Your task to perform on an android device: When is my next meeting? Image 0: 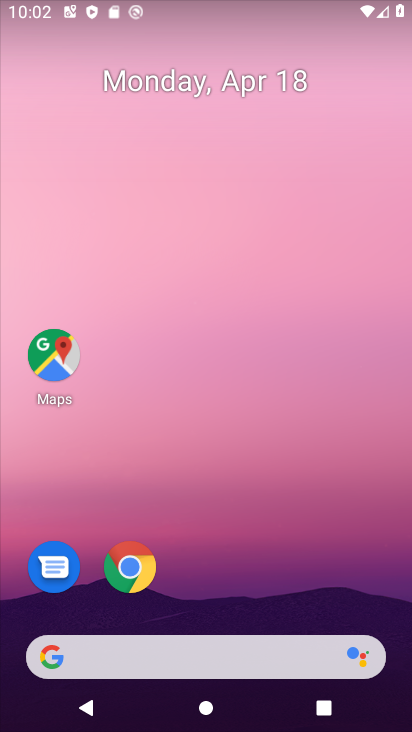
Step 0: drag from (366, 583) to (362, 157)
Your task to perform on an android device: When is my next meeting? Image 1: 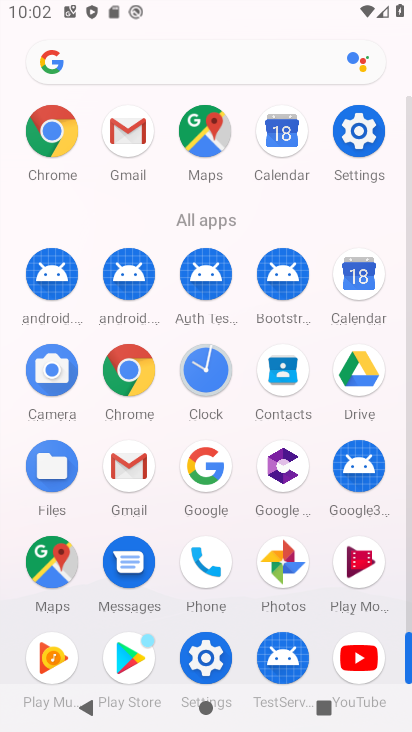
Step 1: click (363, 268)
Your task to perform on an android device: When is my next meeting? Image 2: 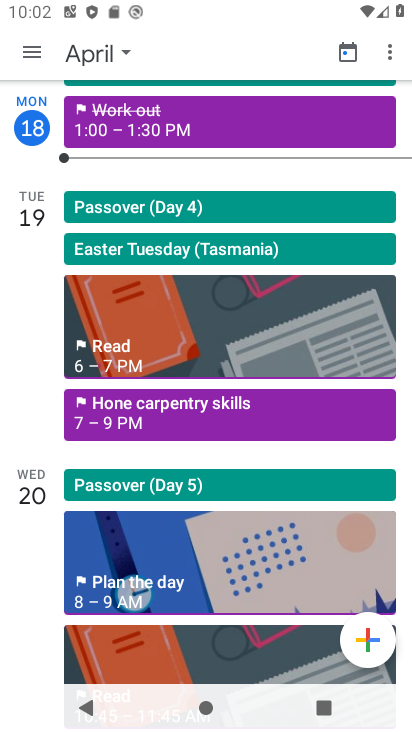
Step 2: click (30, 43)
Your task to perform on an android device: When is my next meeting? Image 3: 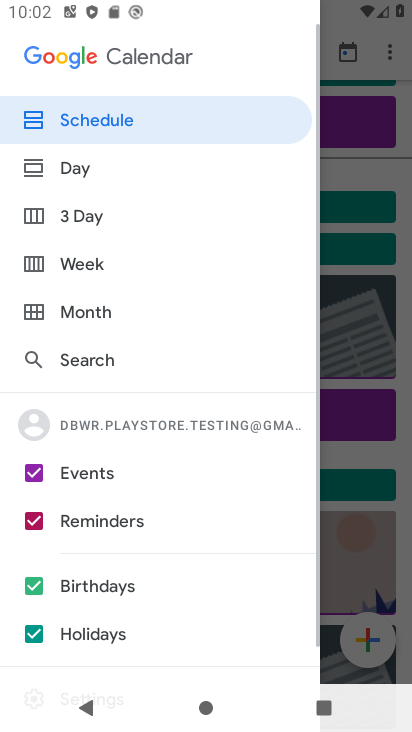
Step 3: click (35, 586)
Your task to perform on an android device: When is my next meeting? Image 4: 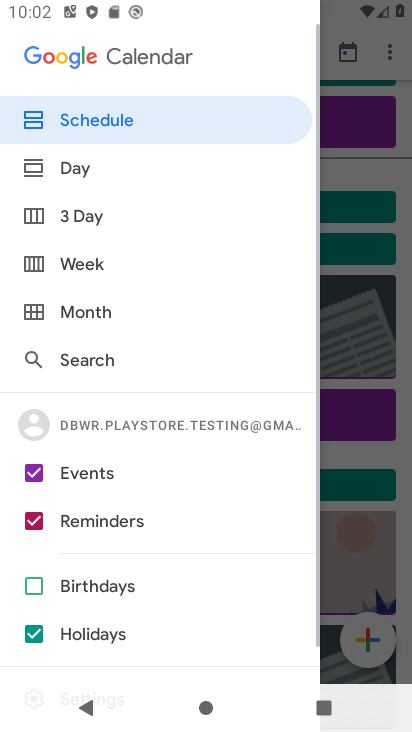
Step 4: click (36, 637)
Your task to perform on an android device: When is my next meeting? Image 5: 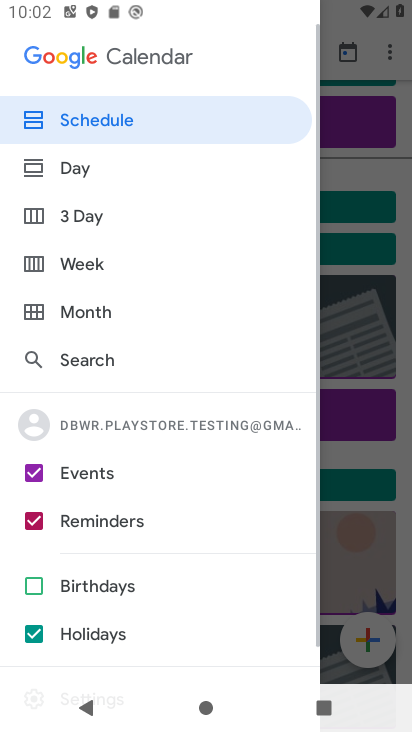
Step 5: click (37, 639)
Your task to perform on an android device: When is my next meeting? Image 6: 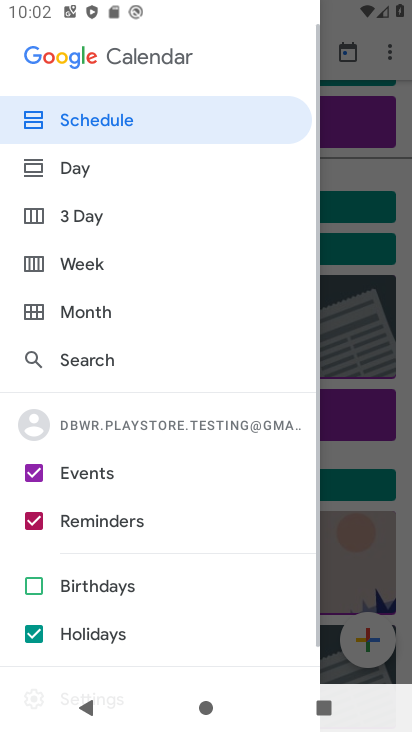
Step 6: click (36, 635)
Your task to perform on an android device: When is my next meeting? Image 7: 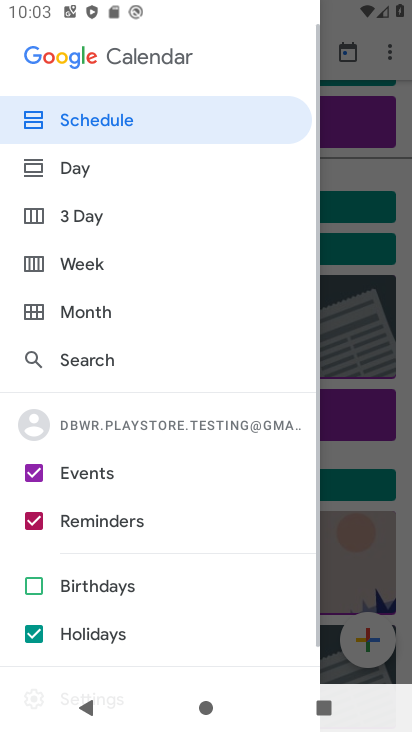
Step 7: click (34, 636)
Your task to perform on an android device: When is my next meeting? Image 8: 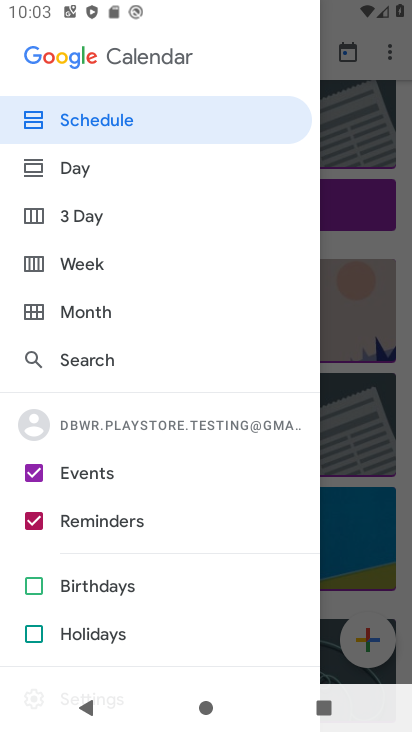
Step 8: click (36, 524)
Your task to perform on an android device: When is my next meeting? Image 9: 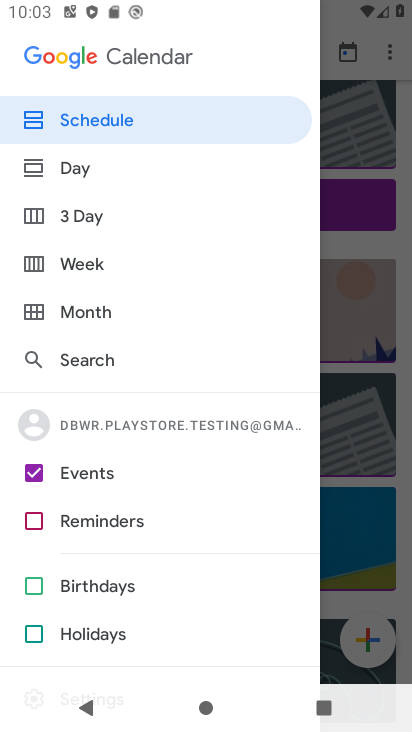
Step 9: click (339, 299)
Your task to perform on an android device: When is my next meeting? Image 10: 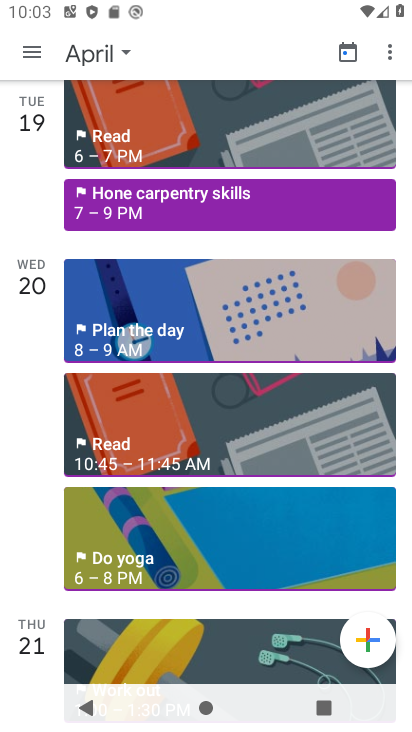
Step 10: task complete